Your task to perform on an android device: Open location settings Image 0: 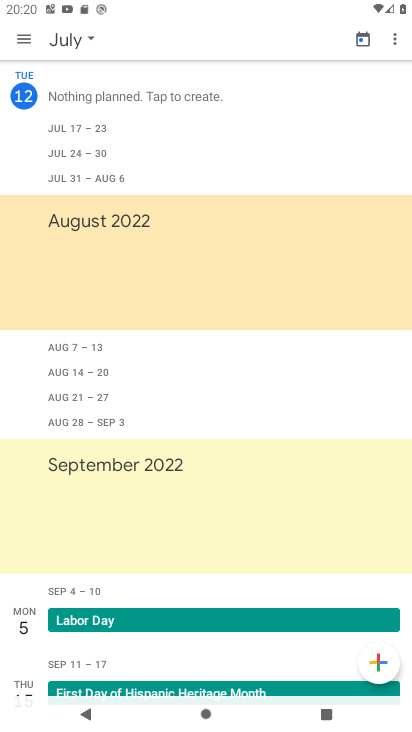
Step 0: press home button
Your task to perform on an android device: Open location settings Image 1: 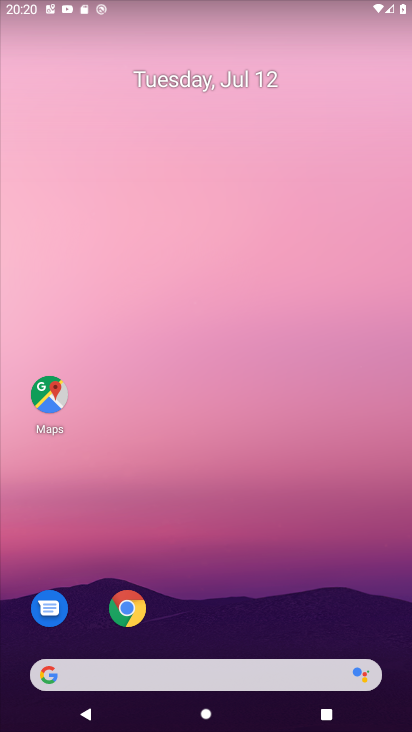
Step 1: drag from (242, 599) to (288, 140)
Your task to perform on an android device: Open location settings Image 2: 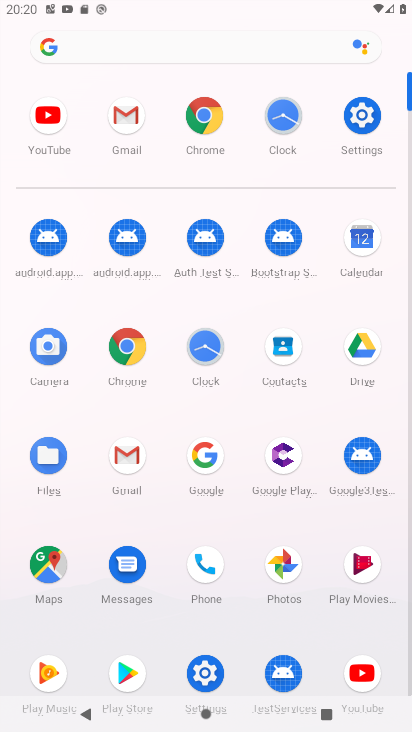
Step 2: click (363, 123)
Your task to perform on an android device: Open location settings Image 3: 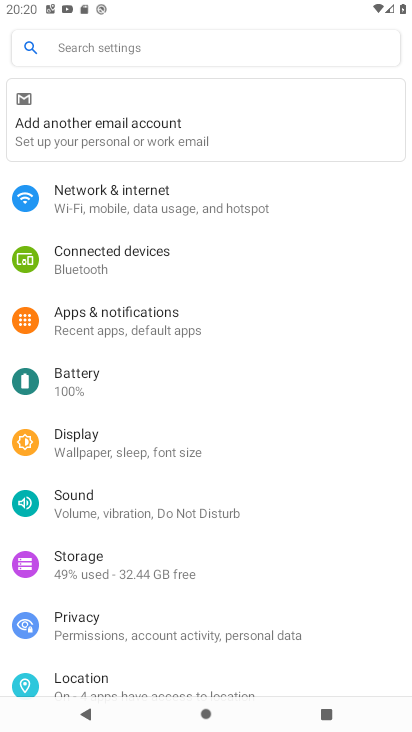
Step 3: drag from (210, 583) to (285, 164)
Your task to perform on an android device: Open location settings Image 4: 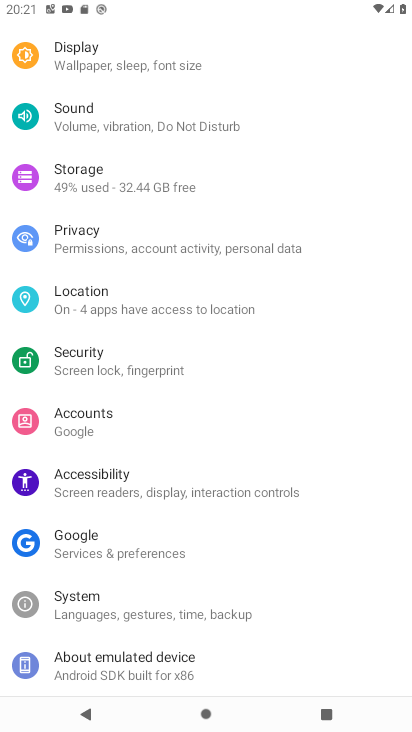
Step 4: click (104, 312)
Your task to perform on an android device: Open location settings Image 5: 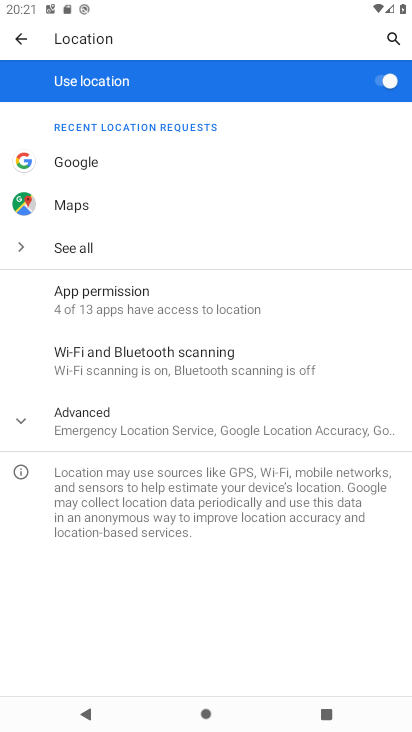
Step 5: task complete